Your task to perform on an android device: Open network settings Image 0: 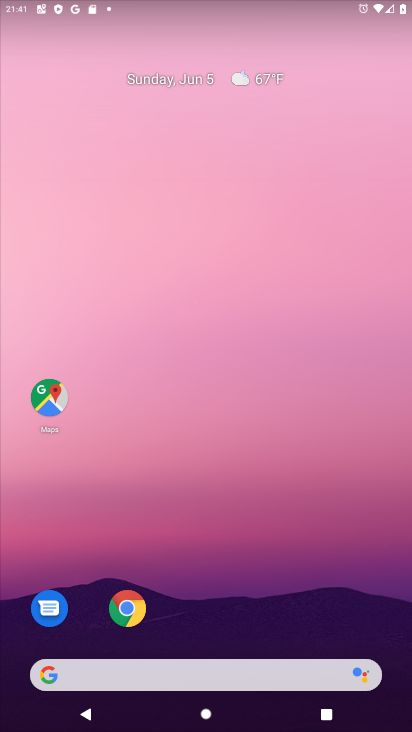
Step 0: drag from (29, 642) to (187, 332)
Your task to perform on an android device: Open network settings Image 1: 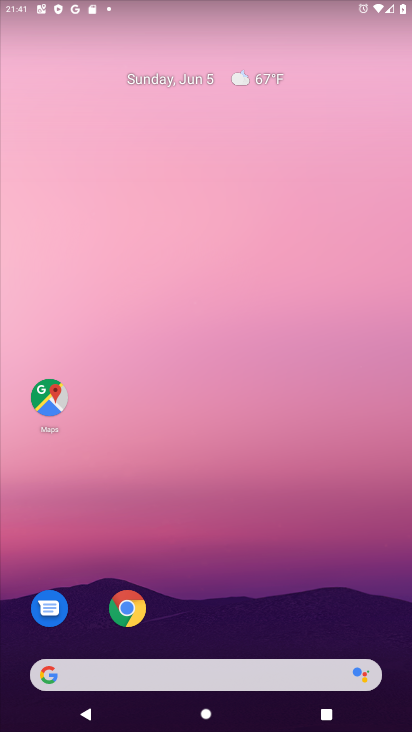
Step 1: drag from (2, 711) to (320, 164)
Your task to perform on an android device: Open network settings Image 2: 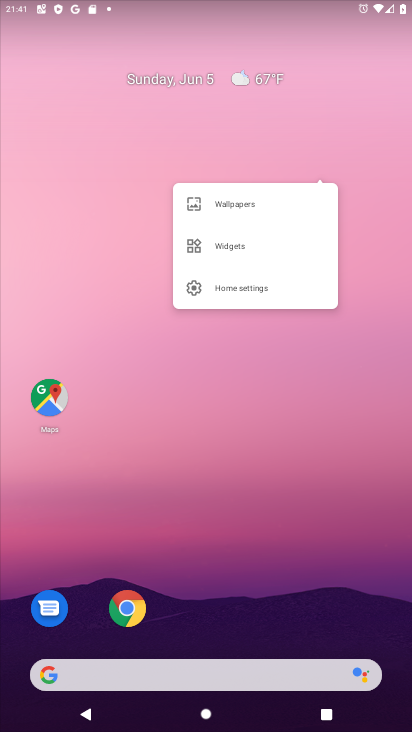
Step 2: press back button
Your task to perform on an android device: Open network settings Image 3: 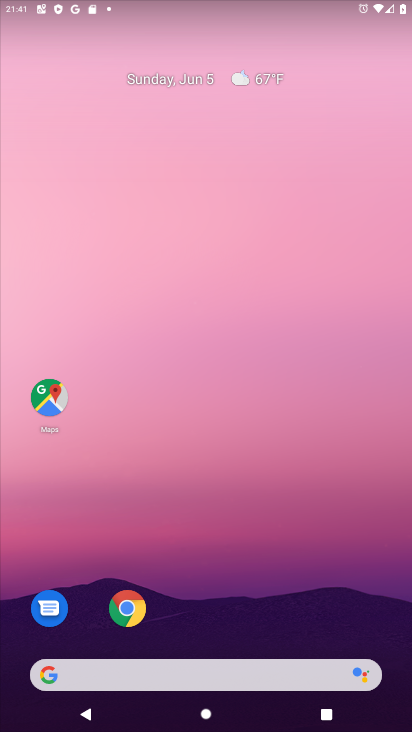
Step 3: drag from (40, 562) to (344, 115)
Your task to perform on an android device: Open network settings Image 4: 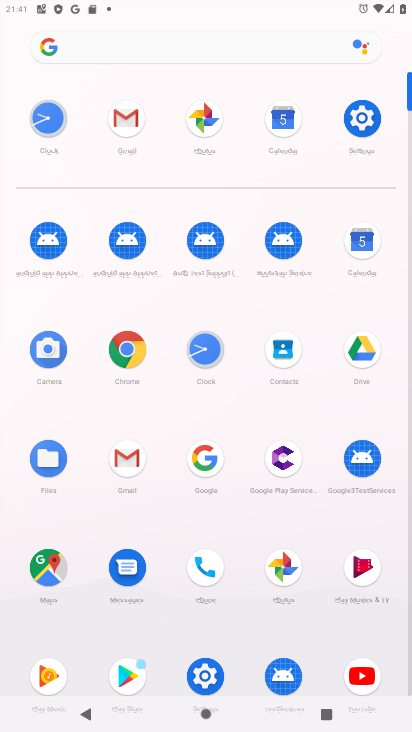
Step 4: click (377, 126)
Your task to perform on an android device: Open network settings Image 5: 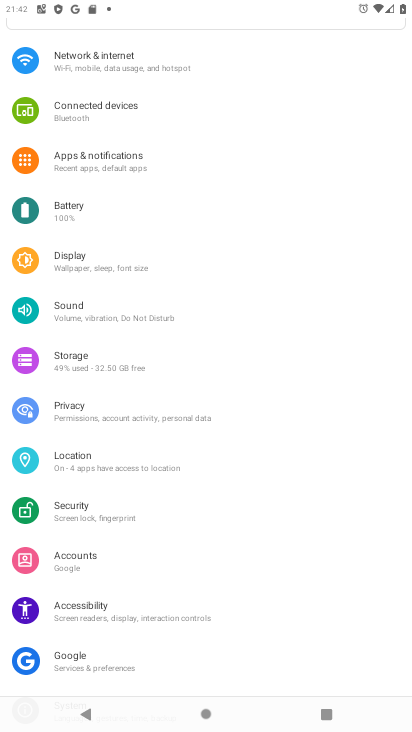
Step 5: click (99, 74)
Your task to perform on an android device: Open network settings Image 6: 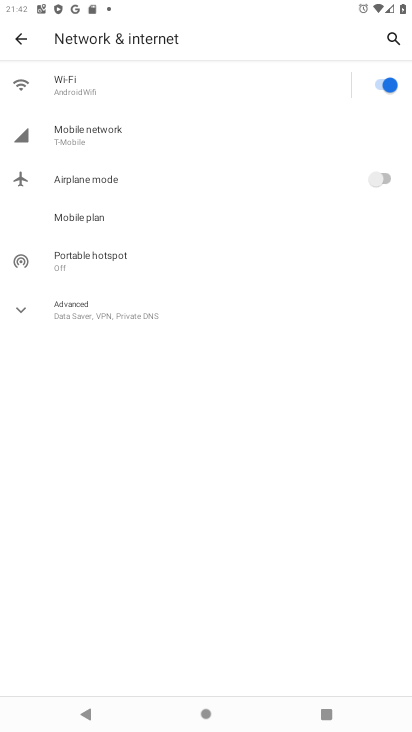
Step 6: click (146, 135)
Your task to perform on an android device: Open network settings Image 7: 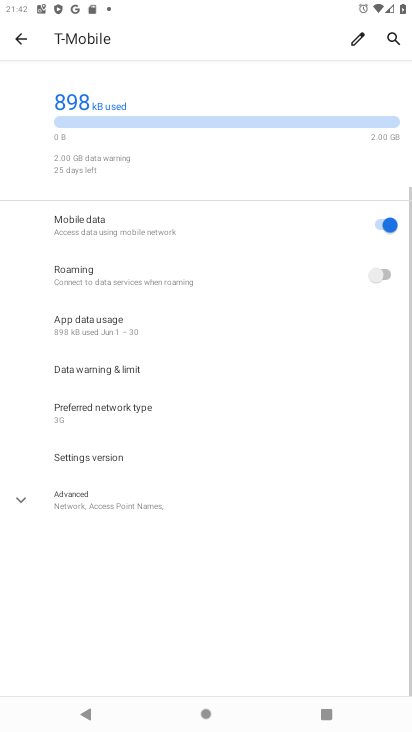
Step 7: task complete